Your task to perform on an android device: remove spam from my inbox in the gmail app Image 0: 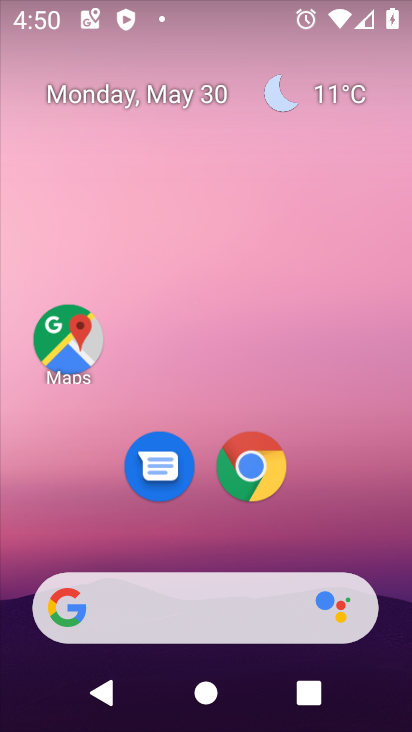
Step 0: drag from (330, 524) to (278, 122)
Your task to perform on an android device: remove spam from my inbox in the gmail app Image 1: 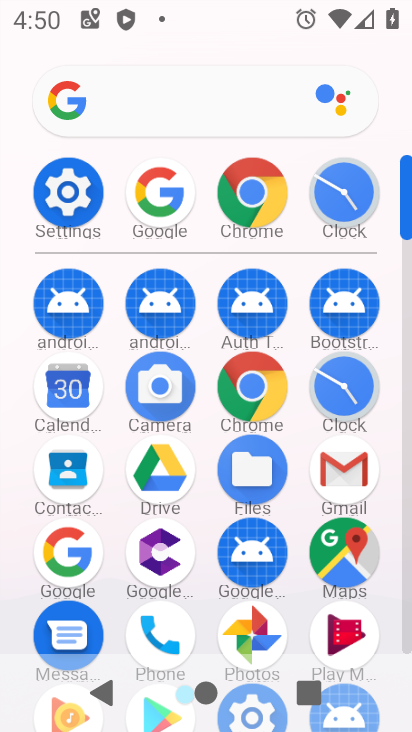
Step 1: click (351, 483)
Your task to perform on an android device: remove spam from my inbox in the gmail app Image 2: 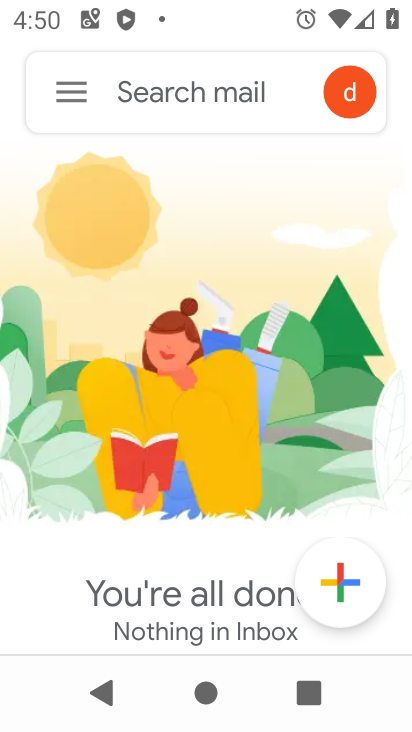
Step 2: click (58, 97)
Your task to perform on an android device: remove spam from my inbox in the gmail app Image 3: 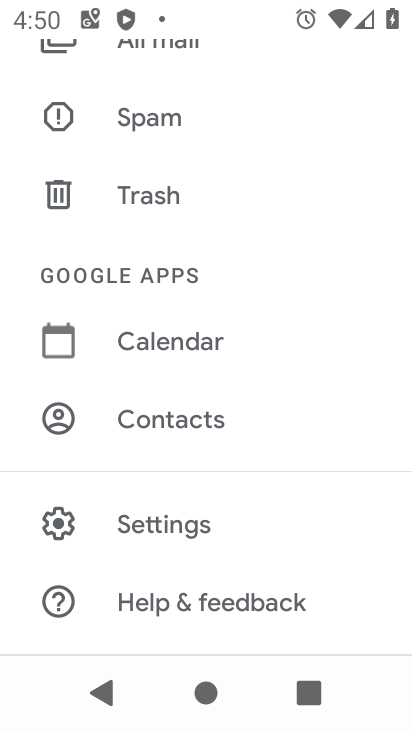
Step 3: drag from (170, 242) to (236, 726)
Your task to perform on an android device: remove spam from my inbox in the gmail app Image 4: 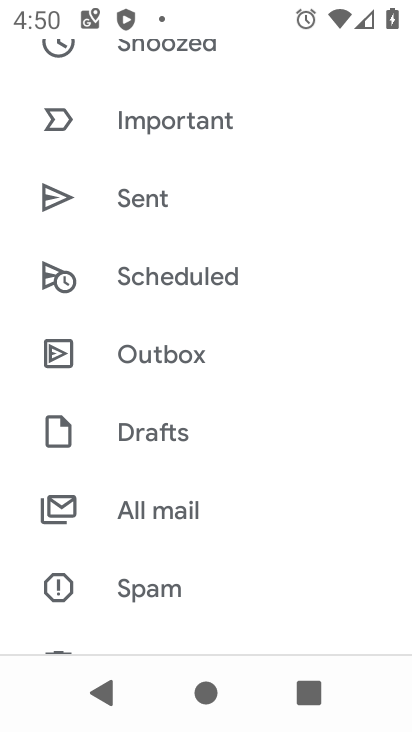
Step 4: drag from (192, 182) to (194, 568)
Your task to perform on an android device: remove spam from my inbox in the gmail app Image 5: 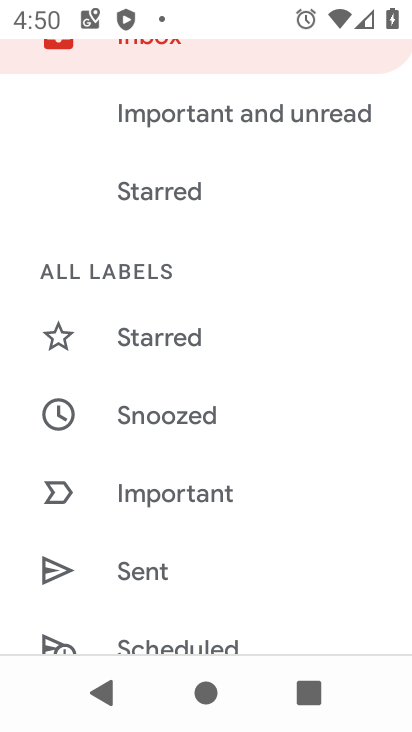
Step 5: drag from (132, 152) to (167, 419)
Your task to perform on an android device: remove spam from my inbox in the gmail app Image 6: 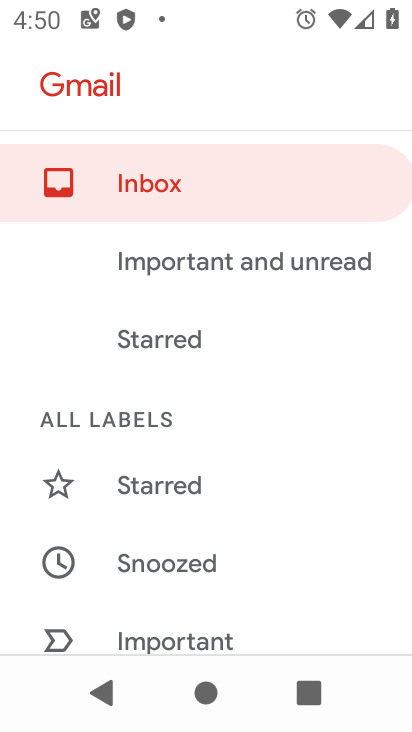
Step 6: click (124, 187)
Your task to perform on an android device: remove spam from my inbox in the gmail app Image 7: 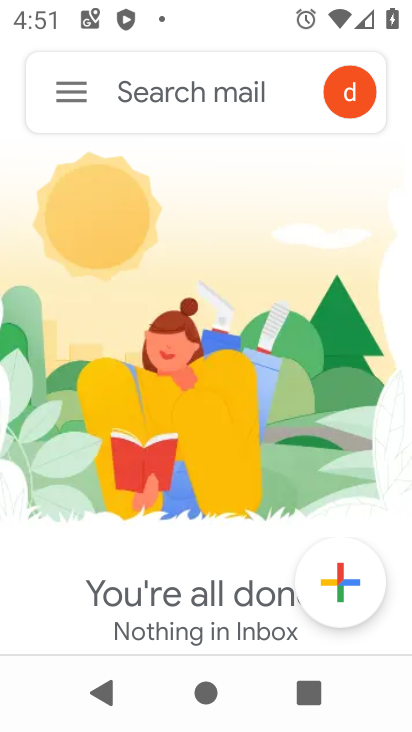
Step 7: task complete